Your task to perform on an android device: What is the recent news? Image 0: 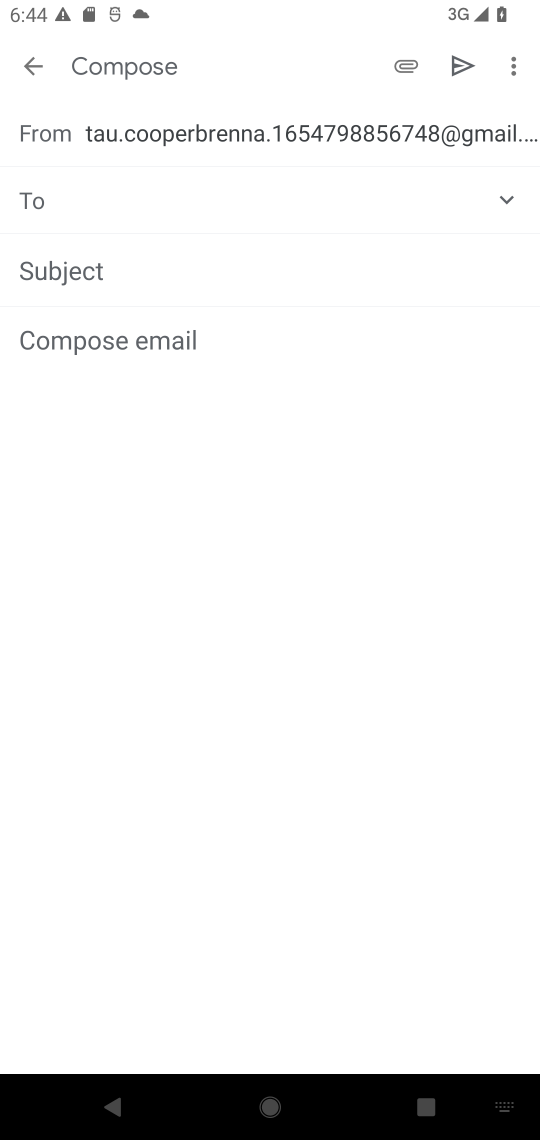
Step 0: press home button
Your task to perform on an android device: What is the recent news? Image 1: 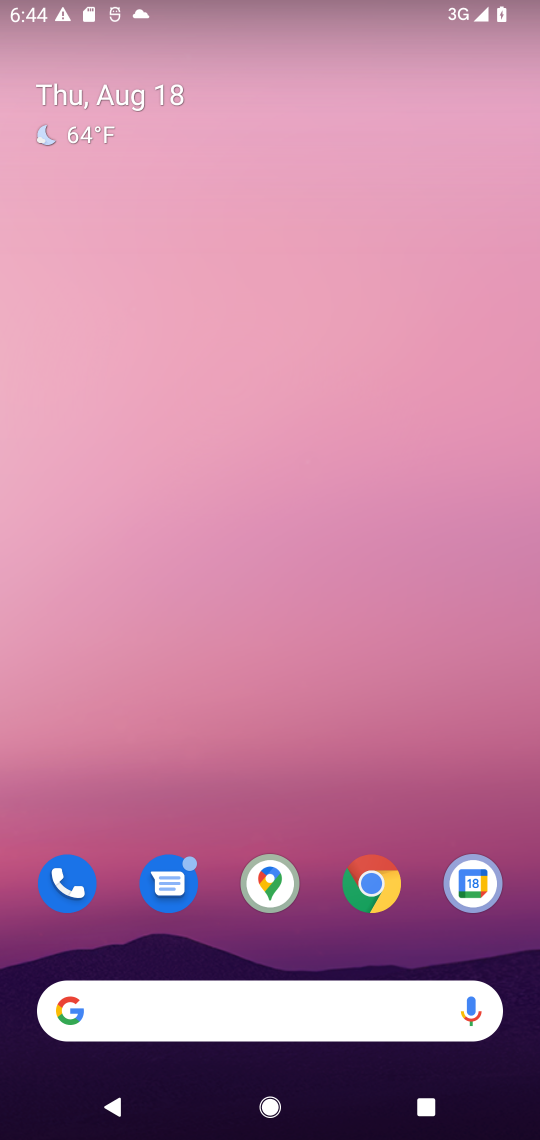
Step 1: click (148, 990)
Your task to perform on an android device: What is the recent news? Image 2: 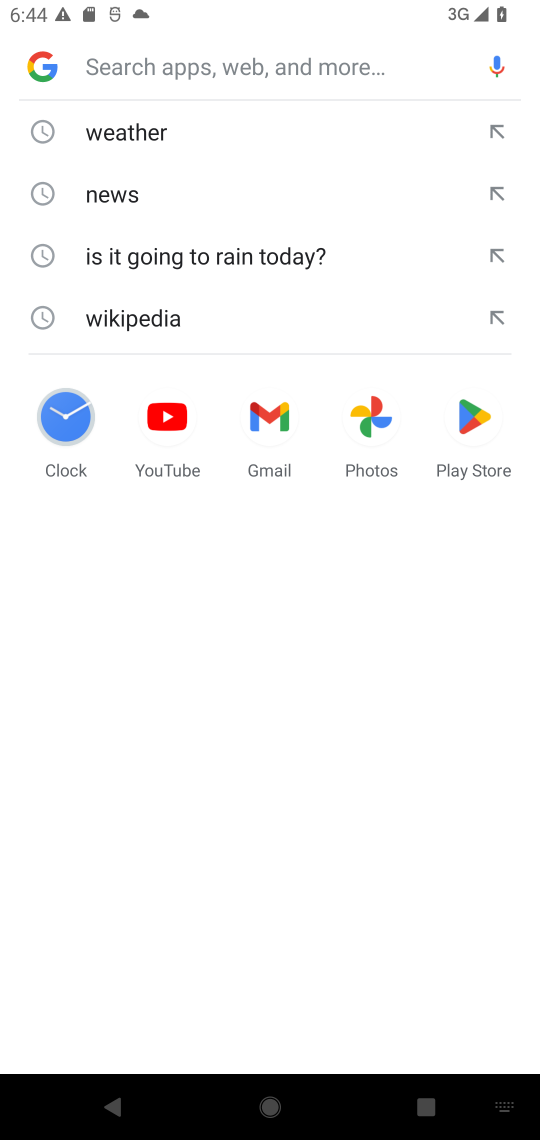
Step 2: type "What is the recent news?"
Your task to perform on an android device: What is the recent news? Image 3: 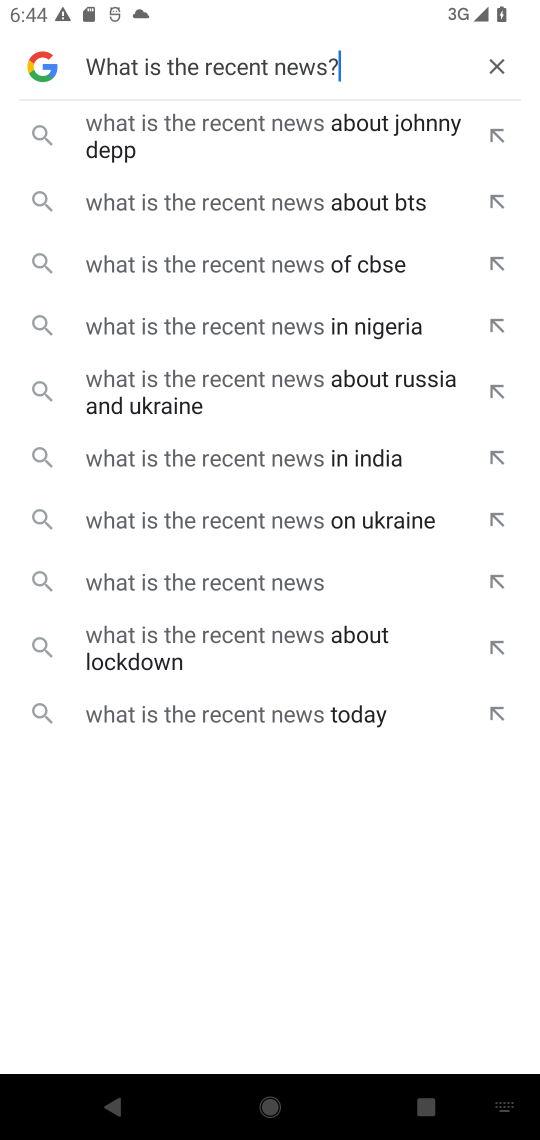
Step 3: type ""
Your task to perform on an android device: What is the recent news? Image 4: 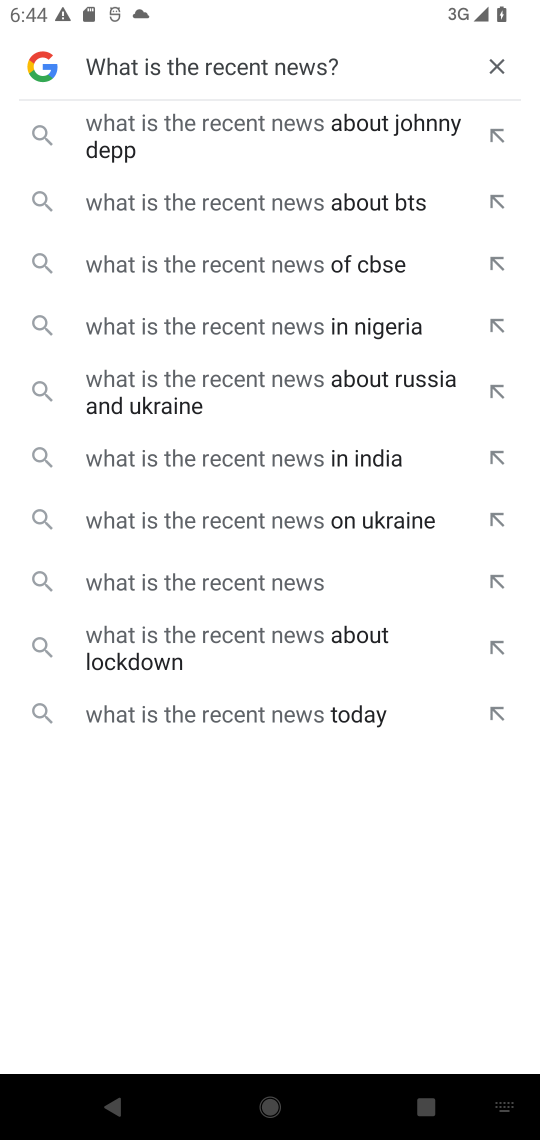
Step 4: type ""
Your task to perform on an android device: What is the recent news? Image 5: 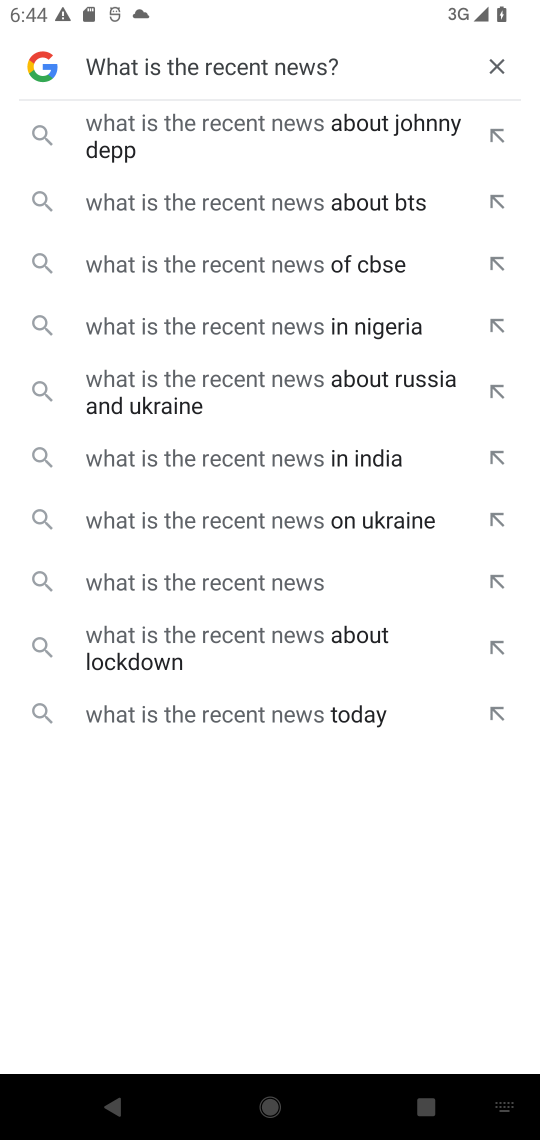
Step 5: type ""
Your task to perform on an android device: What is the recent news? Image 6: 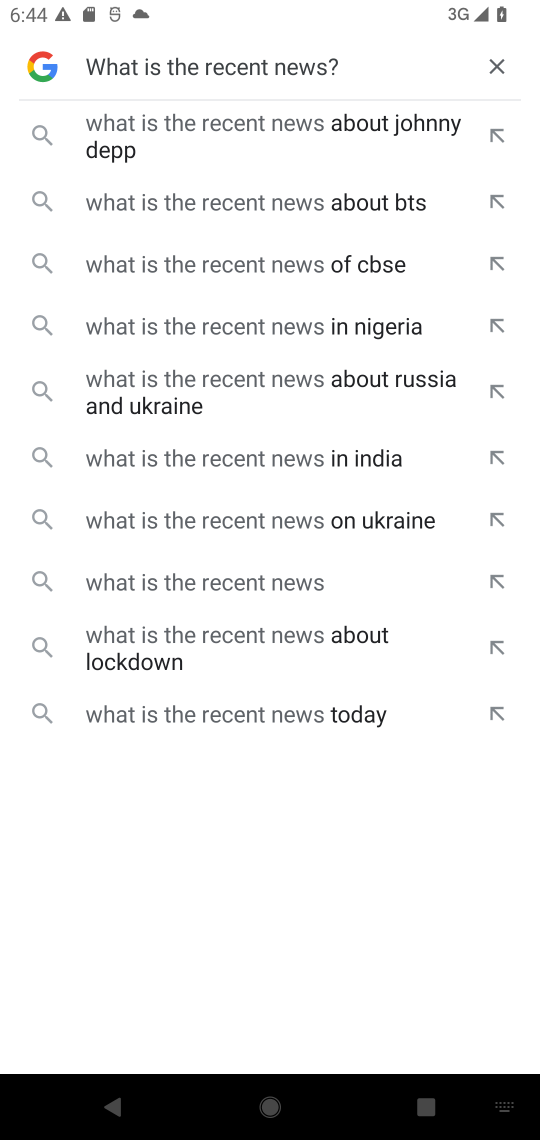
Step 6: type ""
Your task to perform on an android device: What is the recent news? Image 7: 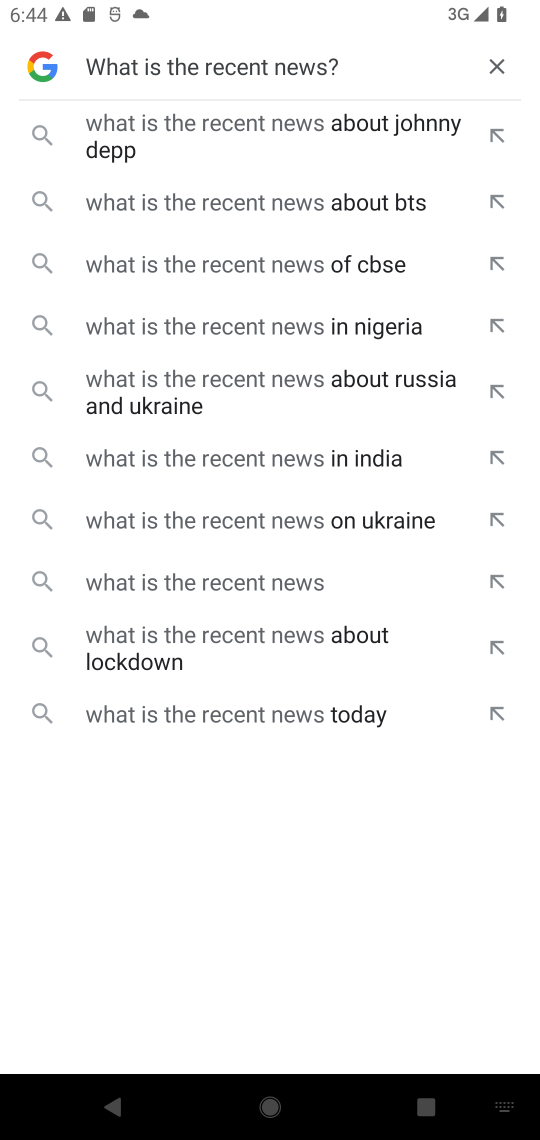
Step 7: task complete